Your task to perform on an android device: Search for sushi restaurants on Maps Image 0: 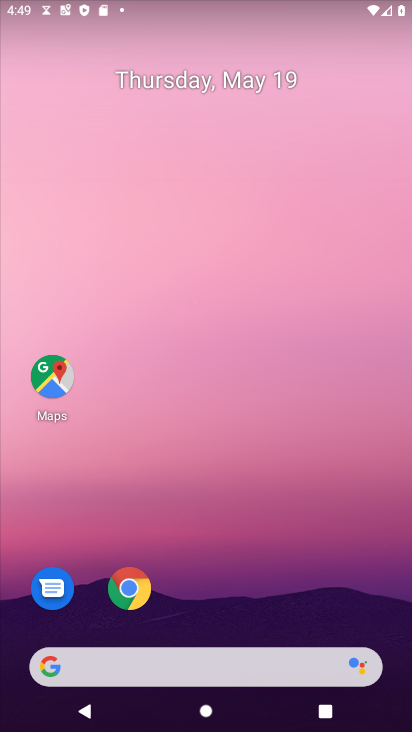
Step 0: click (44, 359)
Your task to perform on an android device: Search for sushi restaurants on Maps Image 1: 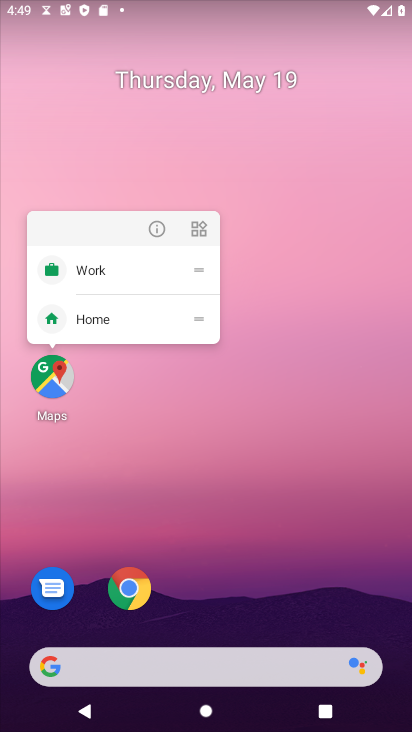
Step 1: click (55, 378)
Your task to perform on an android device: Search for sushi restaurants on Maps Image 2: 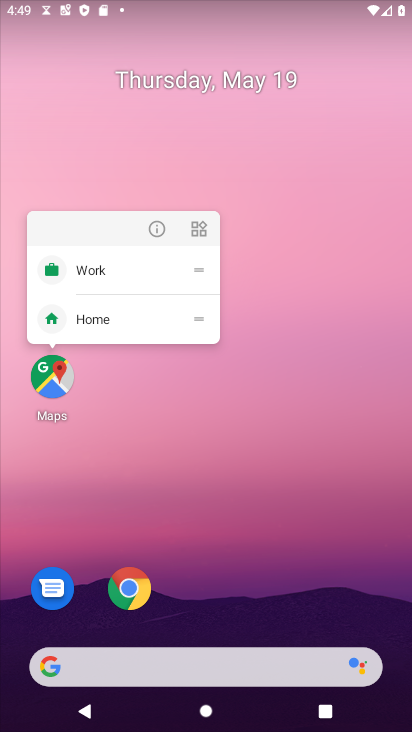
Step 2: click (57, 380)
Your task to perform on an android device: Search for sushi restaurants on Maps Image 3: 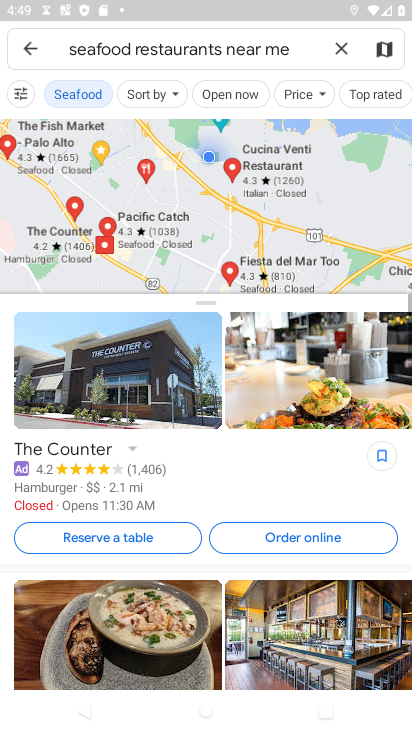
Step 3: click (340, 44)
Your task to perform on an android device: Search for sushi restaurants on Maps Image 4: 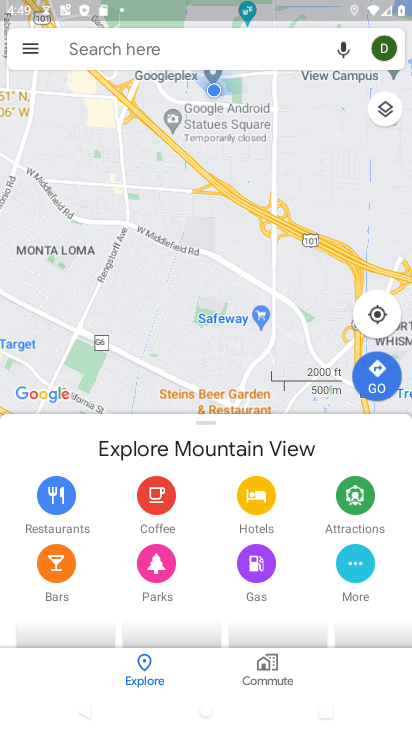
Step 4: click (134, 52)
Your task to perform on an android device: Search for sushi restaurants on Maps Image 5: 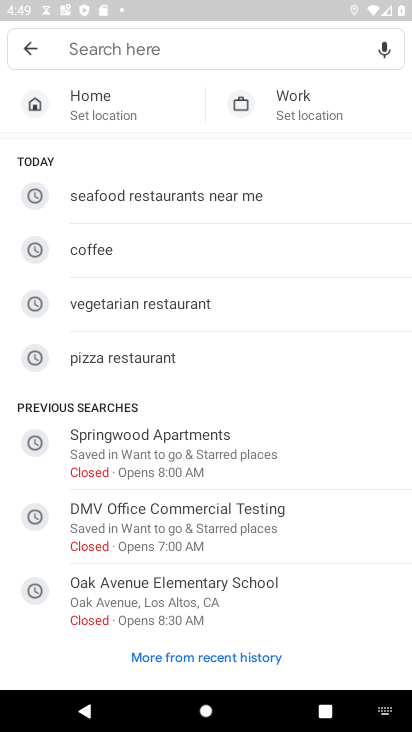
Step 5: type "Sushi restaurants"
Your task to perform on an android device: Search for sushi restaurants on Maps Image 6: 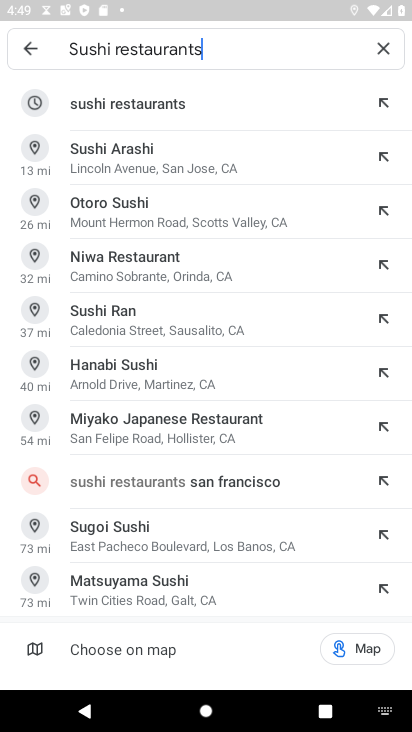
Step 6: click (156, 94)
Your task to perform on an android device: Search for sushi restaurants on Maps Image 7: 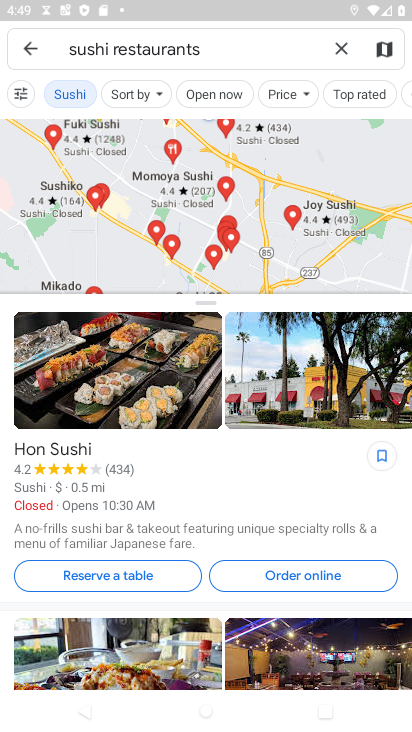
Step 7: task complete